Your task to perform on an android device: What's a good restaurant in Portland? Image 0: 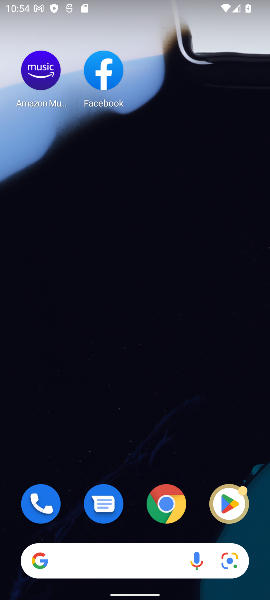
Step 0: click (171, 504)
Your task to perform on an android device: What's a good restaurant in Portland? Image 1: 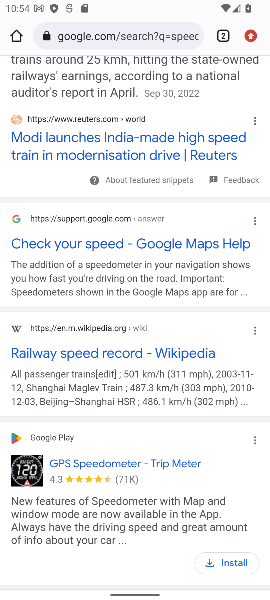
Step 1: click (152, 23)
Your task to perform on an android device: What's a good restaurant in Portland? Image 2: 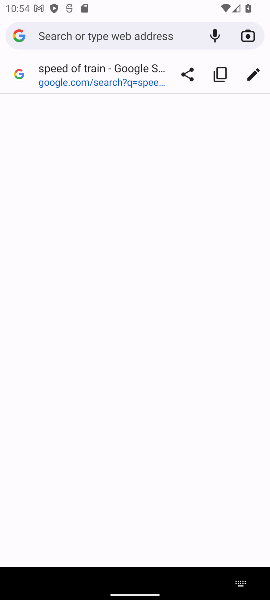
Step 2: type "good restaurant in portland"
Your task to perform on an android device: What's a good restaurant in Portland? Image 3: 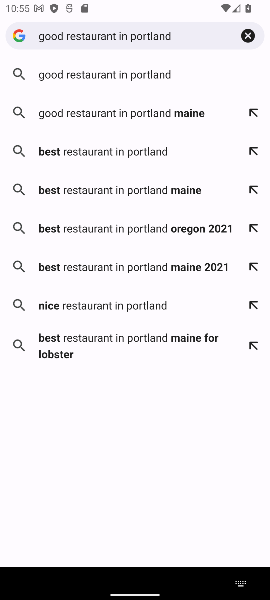
Step 3: click (74, 73)
Your task to perform on an android device: What's a good restaurant in Portland? Image 4: 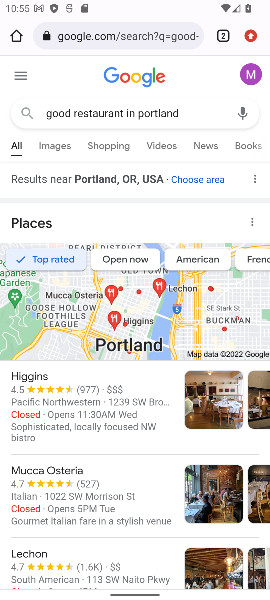
Step 4: drag from (143, 537) to (151, 245)
Your task to perform on an android device: What's a good restaurant in Portland? Image 5: 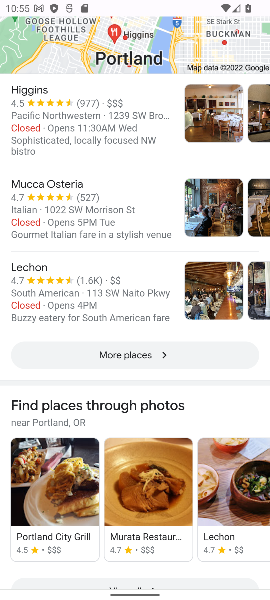
Step 5: drag from (153, 381) to (134, 117)
Your task to perform on an android device: What's a good restaurant in Portland? Image 6: 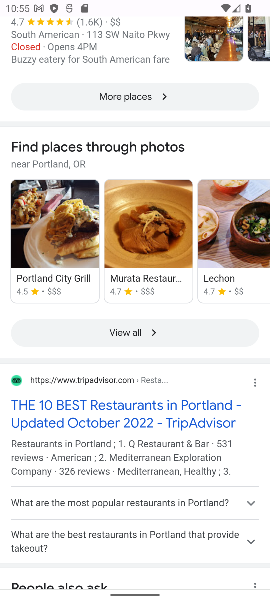
Step 6: drag from (133, 379) to (127, 99)
Your task to perform on an android device: What's a good restaurant in Portland? Image 7: 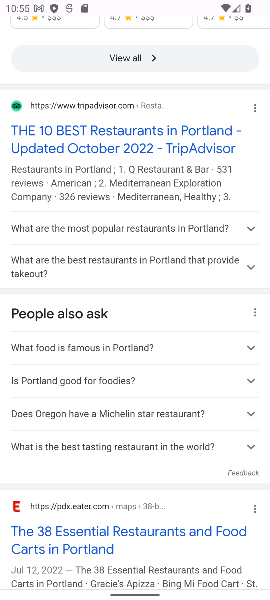
Step 7: click (99, 145)
Your task to perform on an android device: What's a good restaurant in Portland? Image 8: 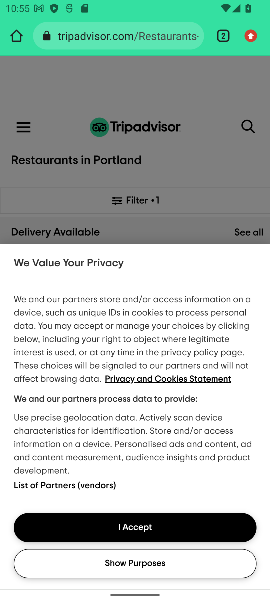
Step 8: task complete